Your task to perform on an android device: Open network settings Image 0: 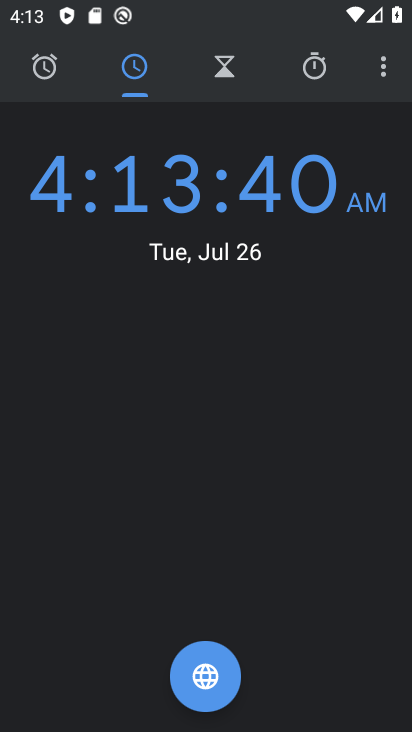
Step 0: press home button
Your task to perform on an android device: Open network settings Image 1: 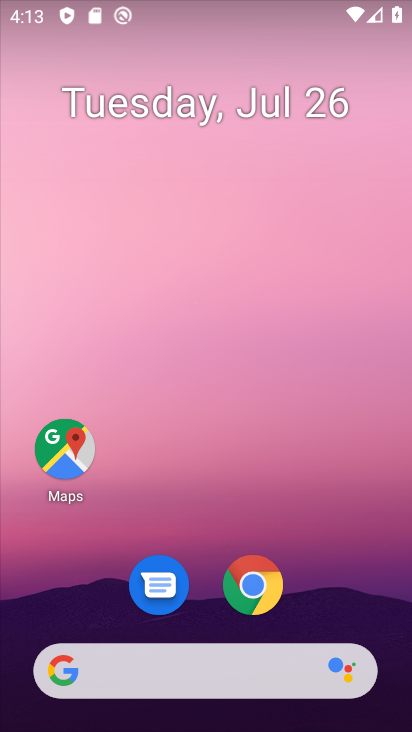
Step 1: drag from (355, 604) to (370, 273)
Your task to perform on an android device: Open network settings Image 2: 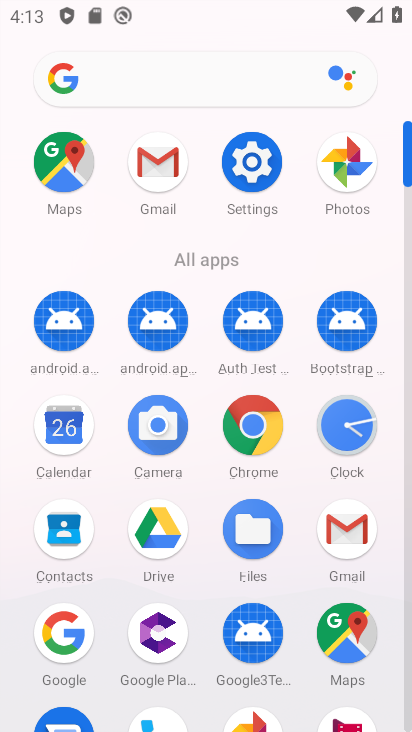
Step 2: click (252, 162)
Your task to perform on an android device: Open network settings Image 3: 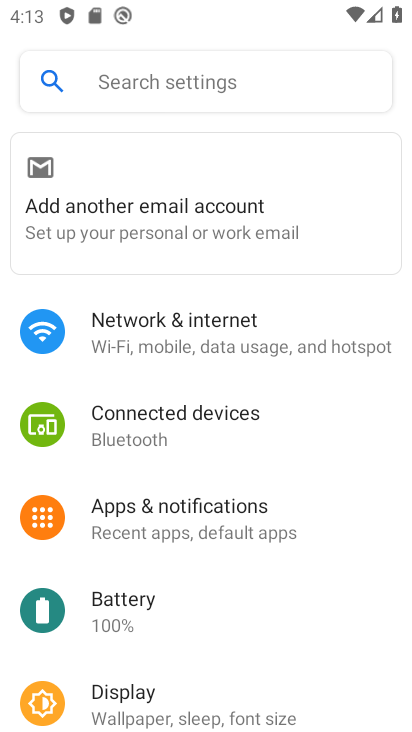
Step 3: click (270, 331)
Your task to perform on an android device: Open network settings Image 4: 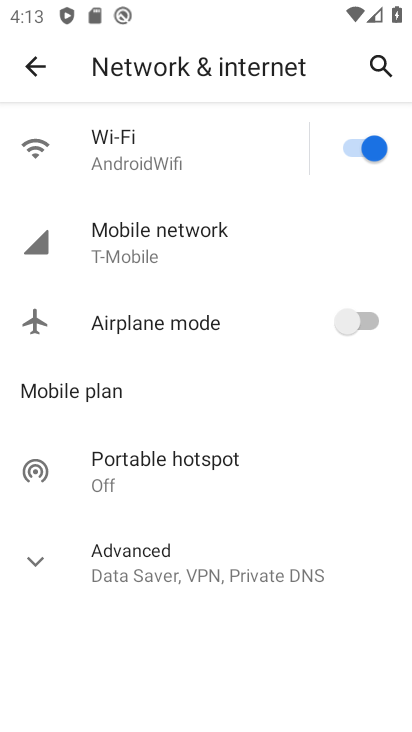
Step 4: task complete